Your task to perform on an android device: toggle notifications settings in the gmail app Image 0: 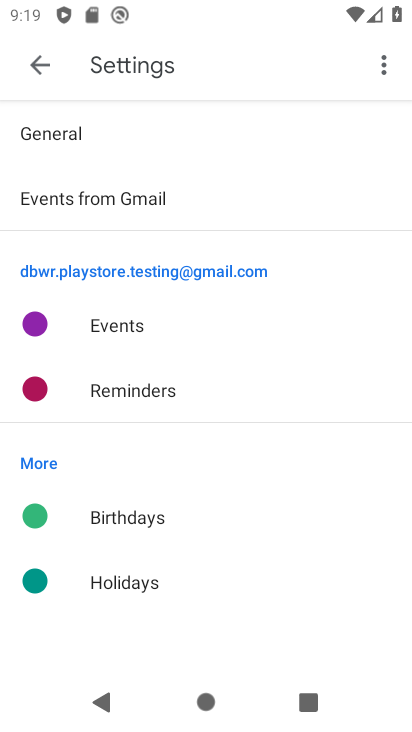
Step 0: press home button
Your task to perform on an android device: toggle notifications settings in the gmail app Image 1: 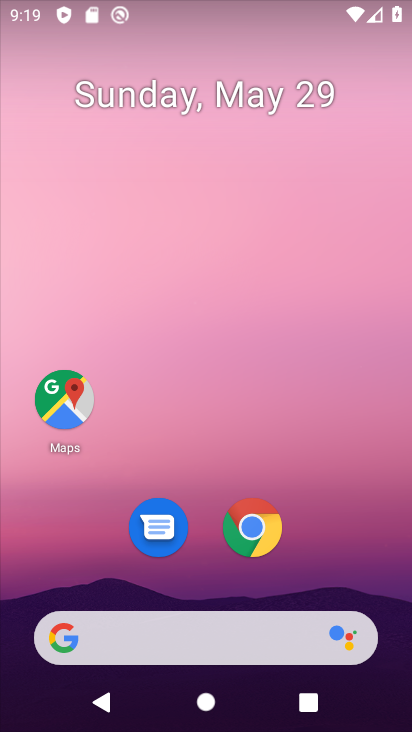
Step 1: drag from (213, 629) to (366, 107)
Your task to perform on an android device: toggle notifications settings in the gmail app Image 2: 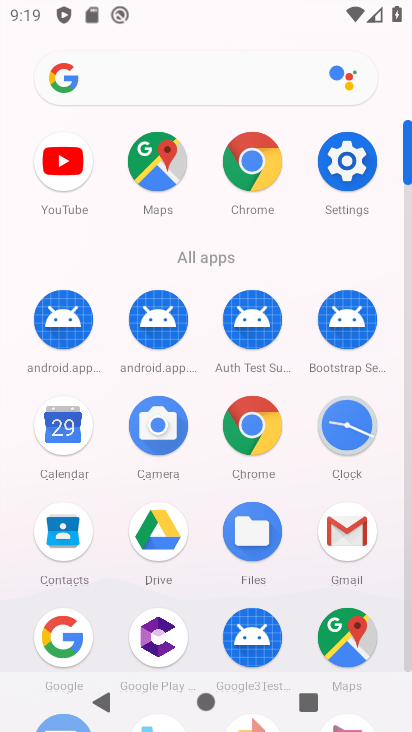
Step 2: click (340, 541)
Your task to perform on an android device: toggle notifications settings in the gmail app Image 3: 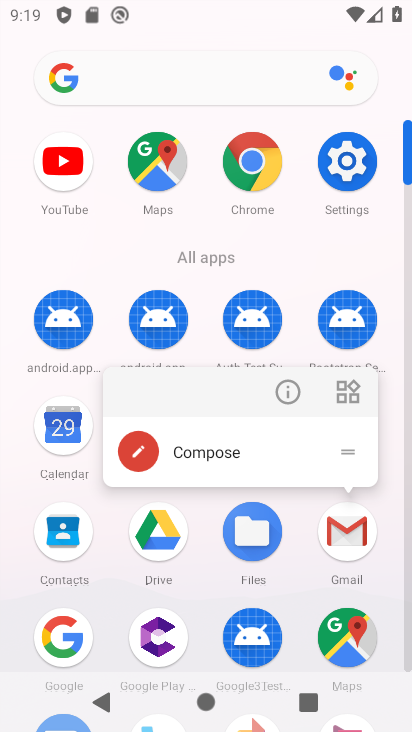
Step 3: click (346, 543)
Your task to perform on an android device: toggle notifications settings in the gmail app Image 4: 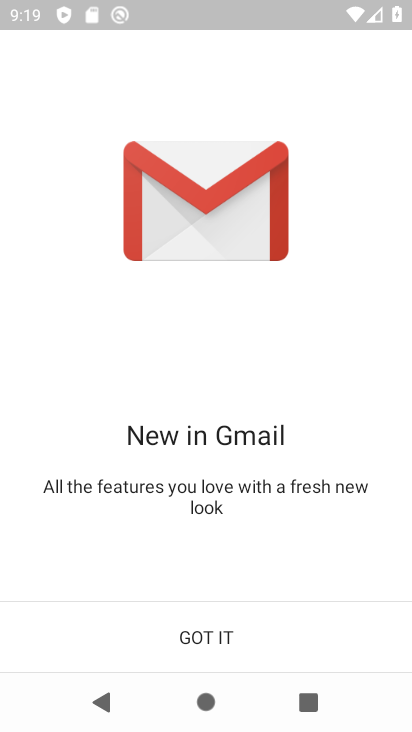
Step 4: click (221, 636)
Your task to perform on an android device: toggle notifications settings in the gmail app Image 5: 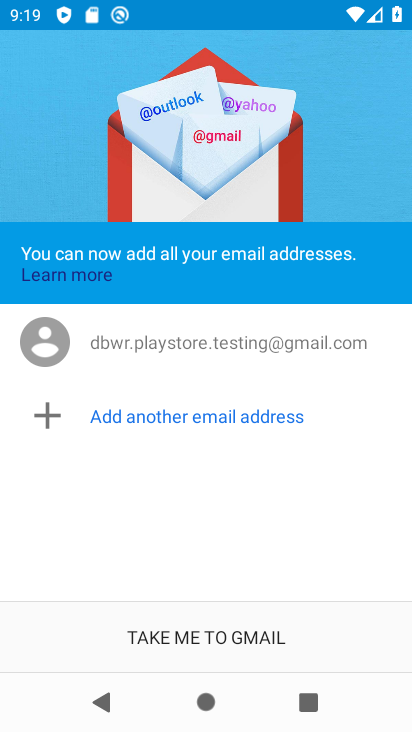
Step 5: click (221, 638)
Your task to perform on an android device: toggle notifications settings in the gmail app Image 6: 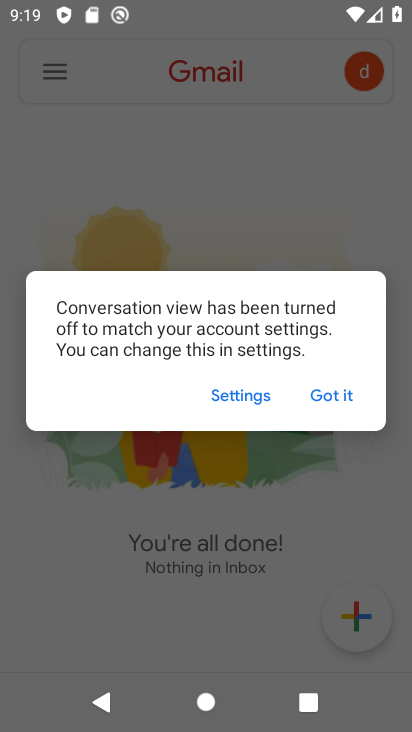
Step 6: click (330, 406)
Your task to perform on an android device: toggle notifications settings in the gmail app Image 7: 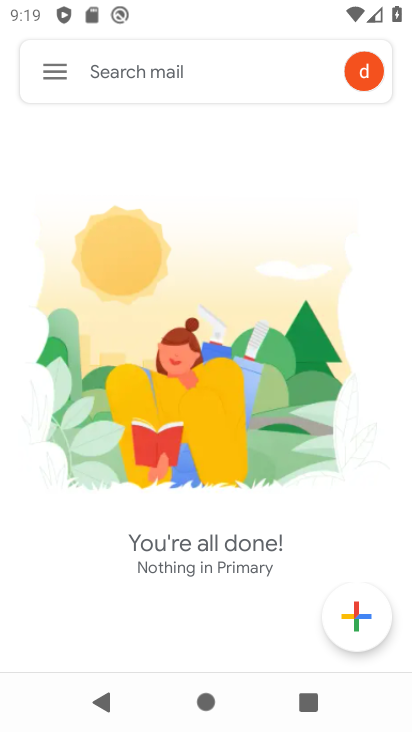
Step 7: click (56, 77)
Your task to perform on an android device: toggle notifications settings in the gmail app Image 8: 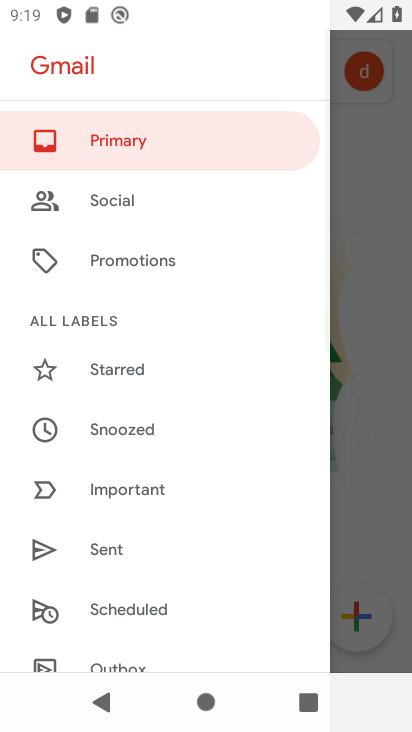
Step 8: drag from (255, 534) to (314, 78)
Your task to perform on an android device: toggle notifications settings in the gmail app Image 9: 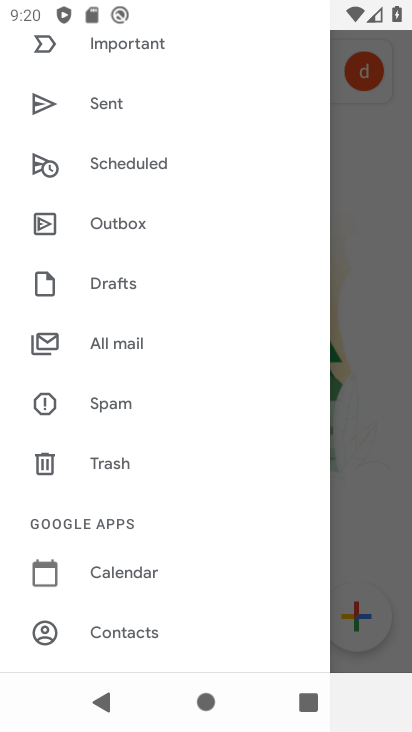
Step 9: drag from (157, 583) to (294, 100)
Your task to perform on an android device: toggle notifications settings in the gmail app Image 10: 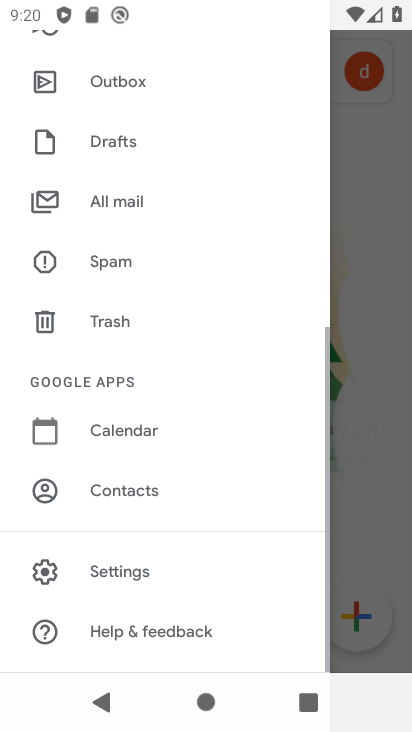
Step 10: click (139, 573)
Your task to perform on an android device: toggle notifications settings in the gmail app Image 11: 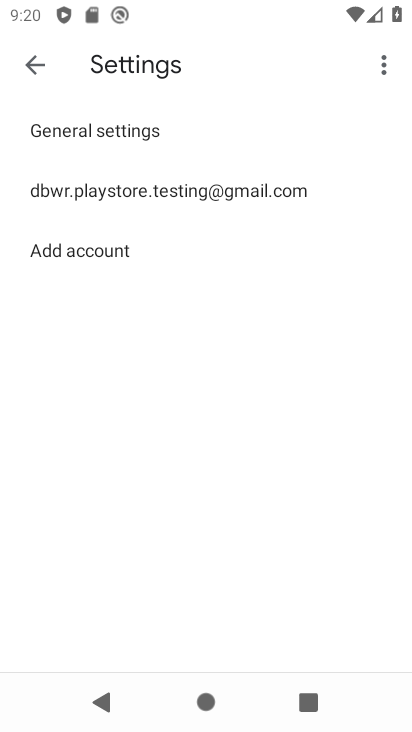
Step 11: click (189, 194)
Your task to perform on an android device: toggle notifications settings in the gmail app Image 12: 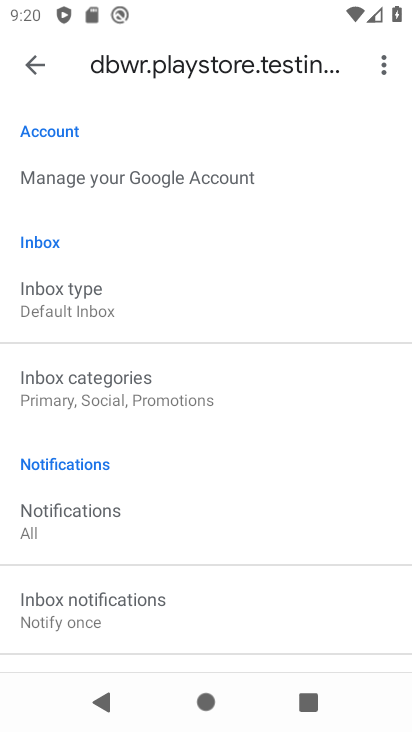
Step 12: click (82, 521)
Your task to perform on an android device: toggle notifications settings in the gmail app Image 13: 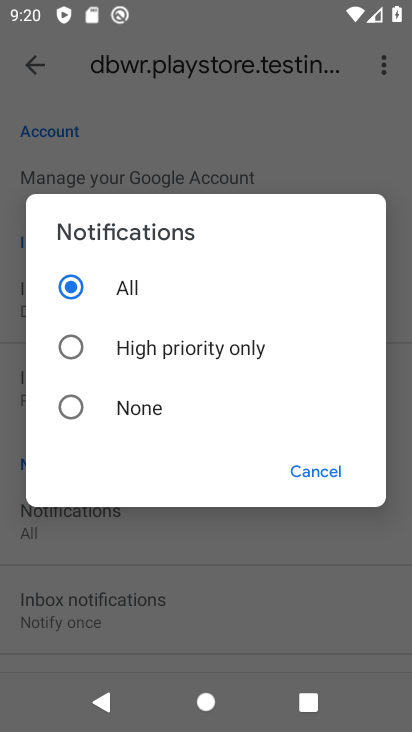
Step 13: click (71, 407)
Your task to perform on an android device: toggle notifications settings in the gmail app Image 14: 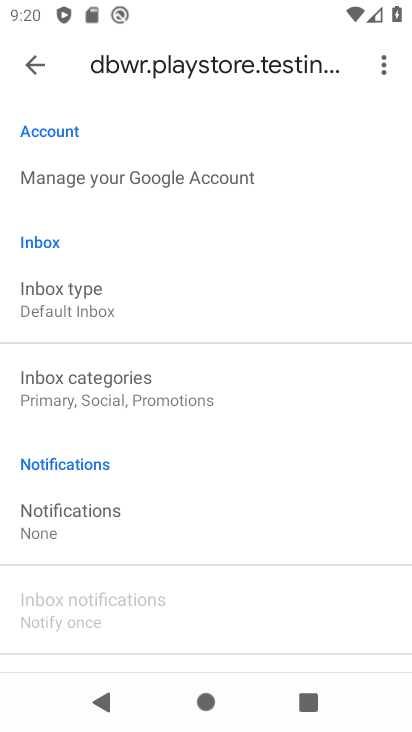
Step 14: task complete